Your task to perform on an android device: open a bookmark in the chrome app Image 0: 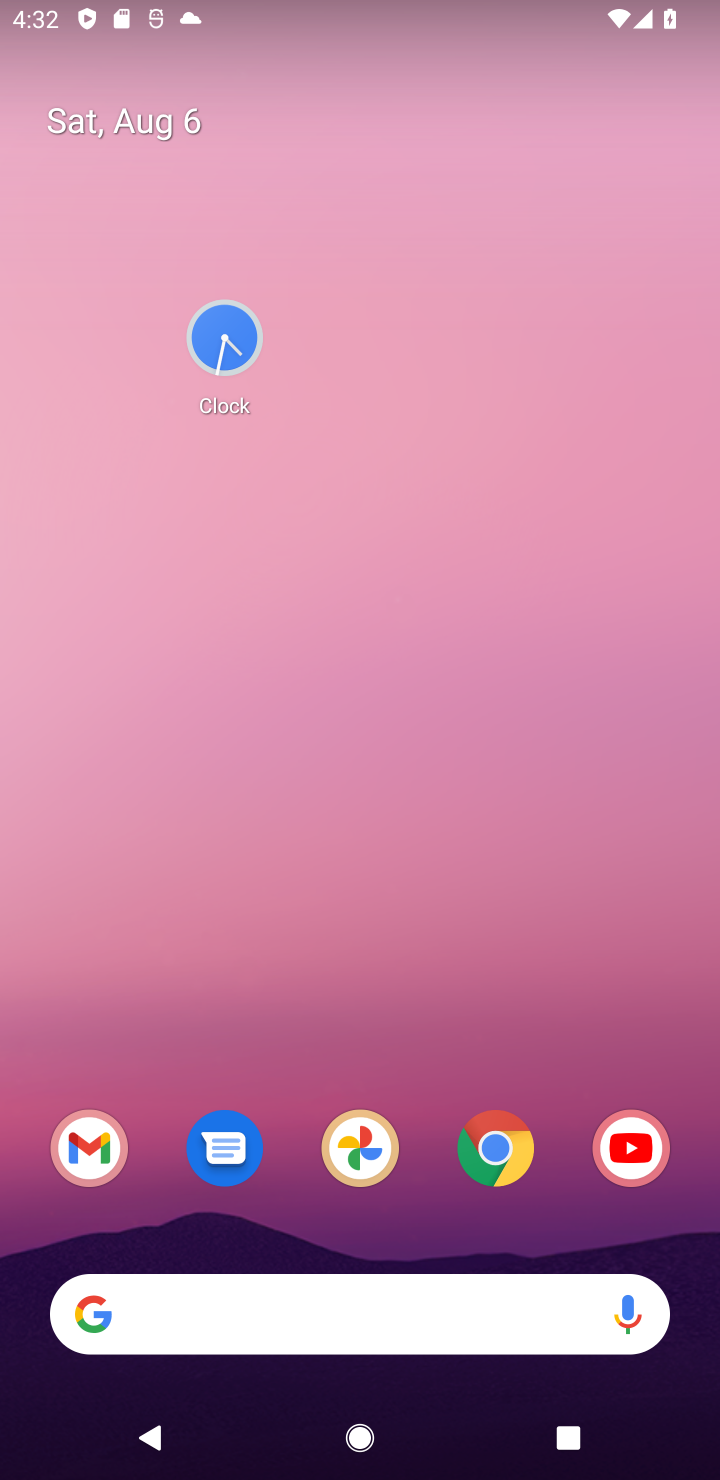
Step 0: drag from (441, 758) to (582, 1402)
Your task to perform on an android device: open a bookmark in the chrome app Image 1: 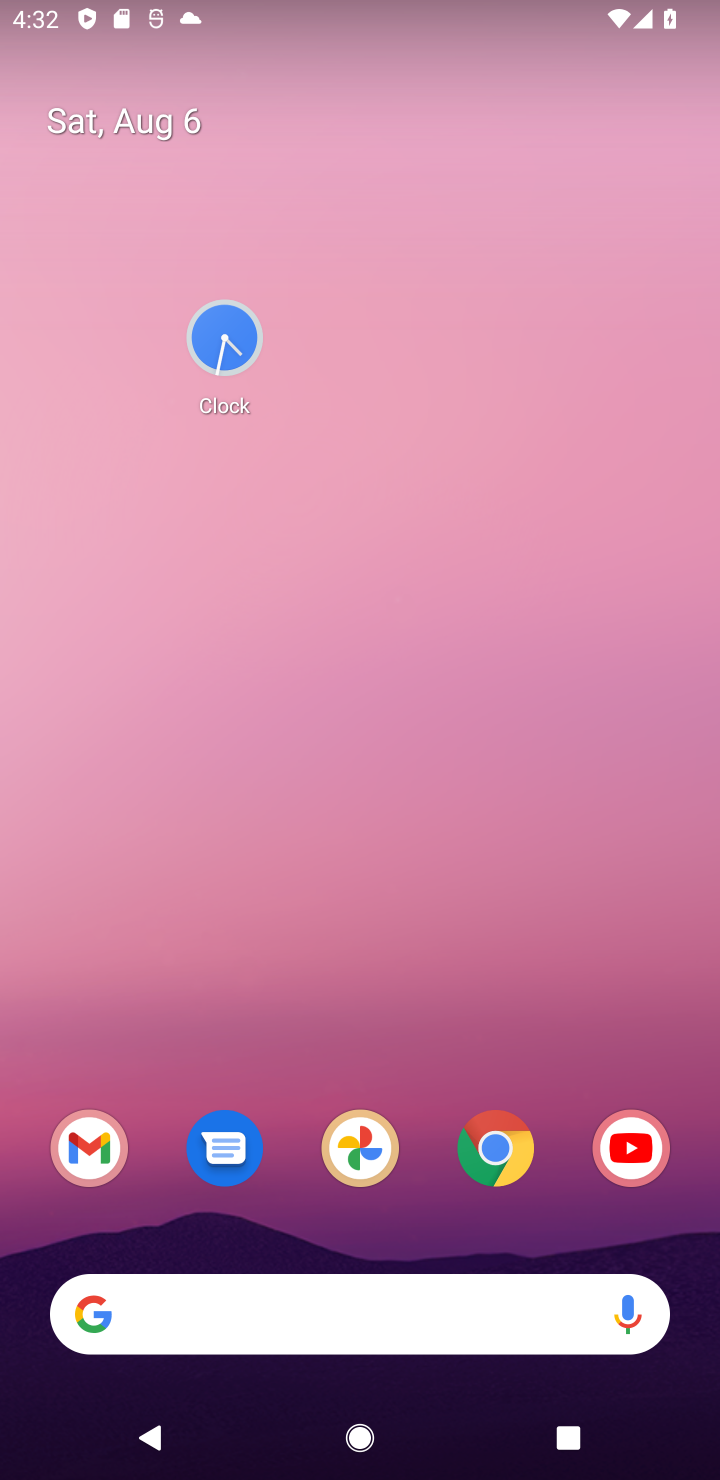
Step 1: click (492, 1156)
Your task to perform on an android device: open a bookmark in the chrome app Image 2: 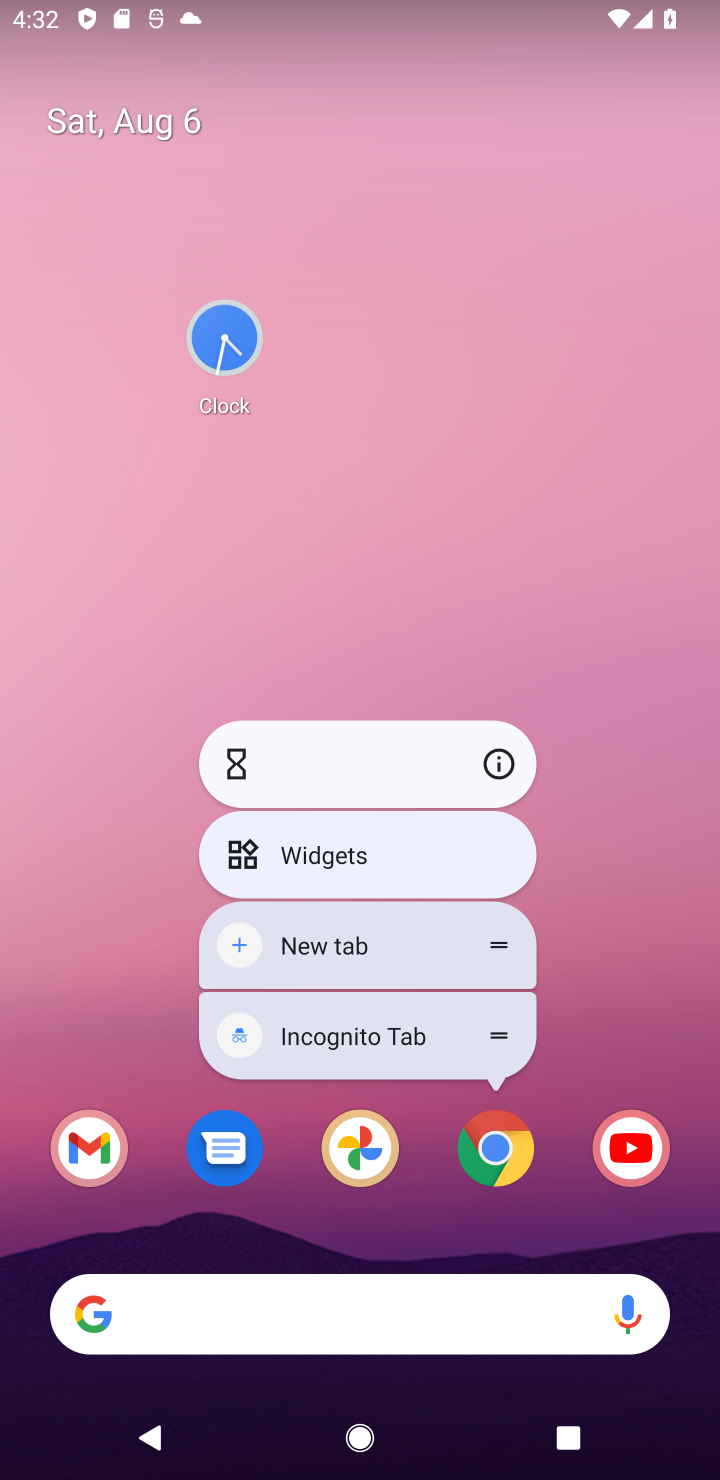
Step 2: click (494, 790)
Your task to perform on an android device: open a bookmark in the chrome app Image 3: 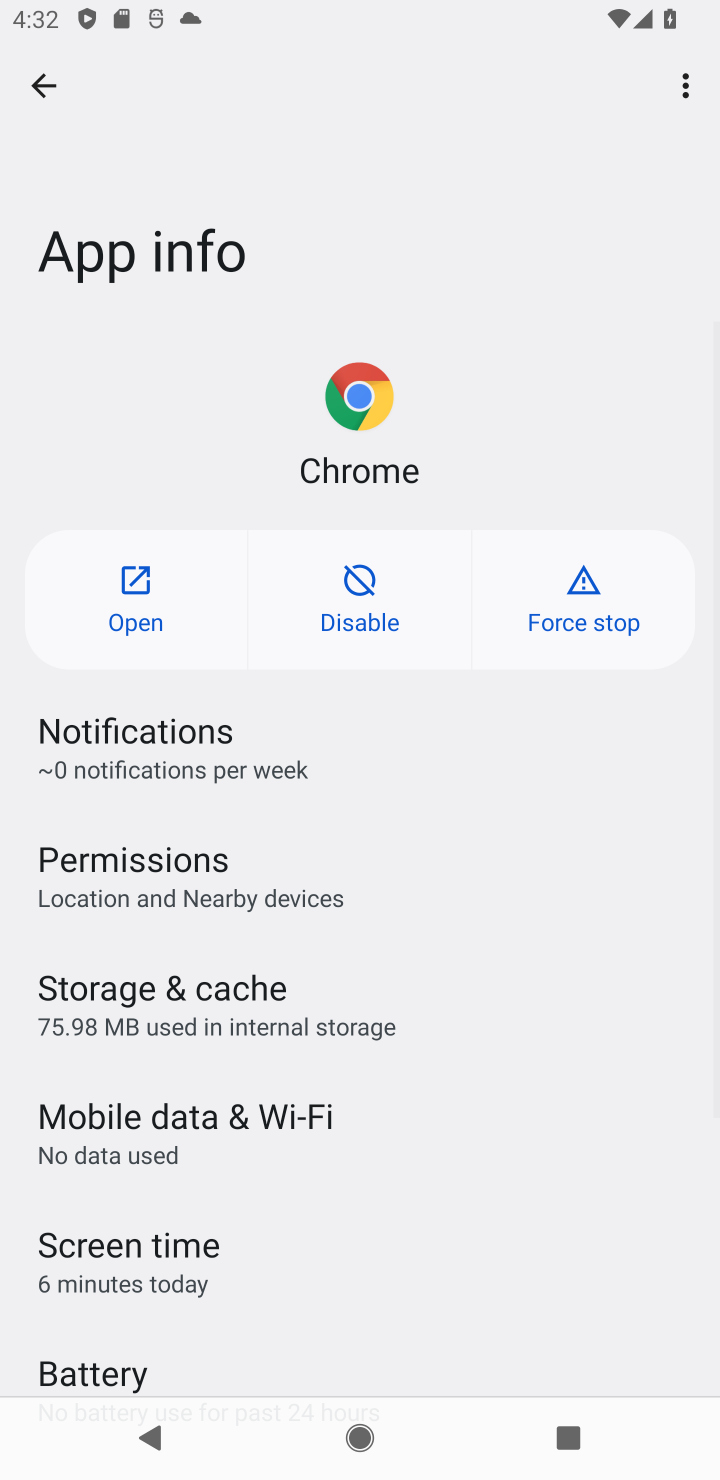
Step 3: click (170, 588)
Your task to perform on an android device: open a bookmark in the chrome app Image 4: 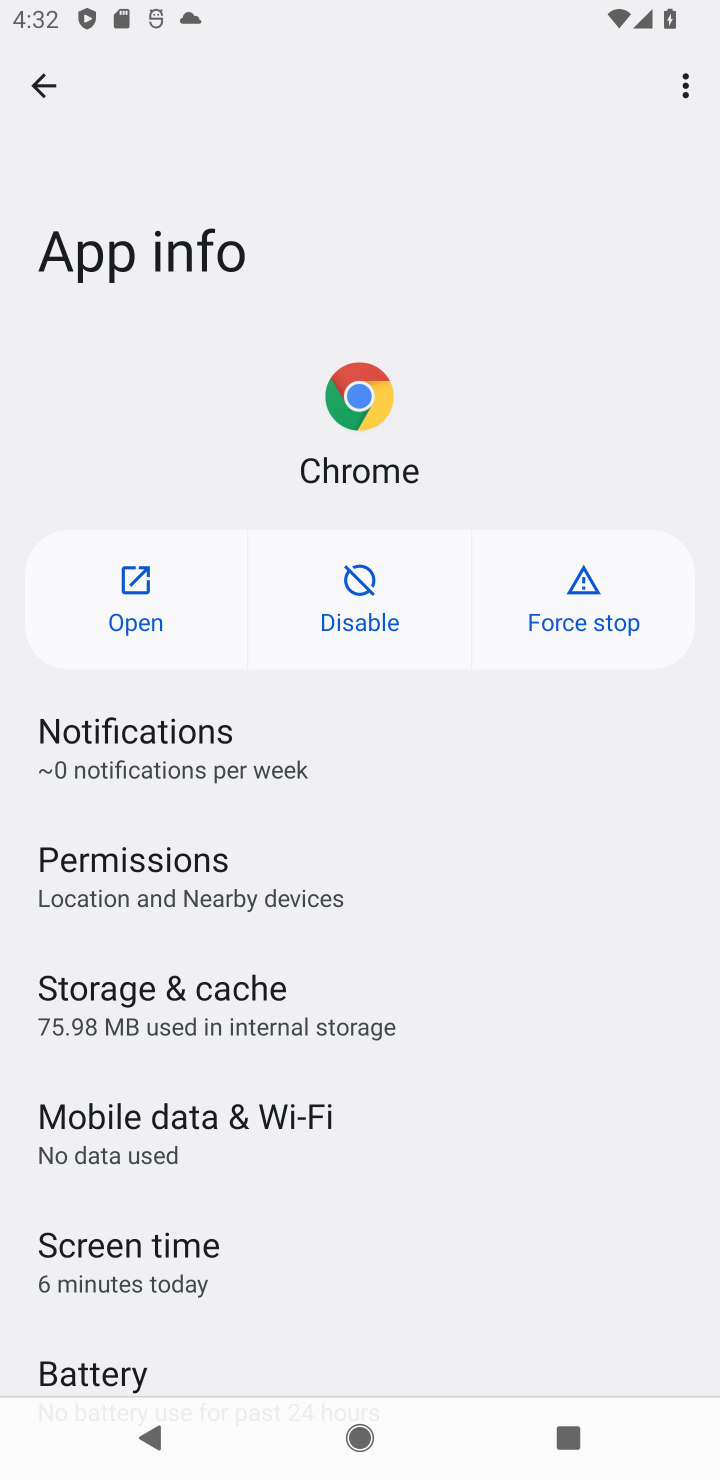
Step 4: click (165, 588)
Your task to perform on an android device: open a bookmark in the chrome app Image 5: 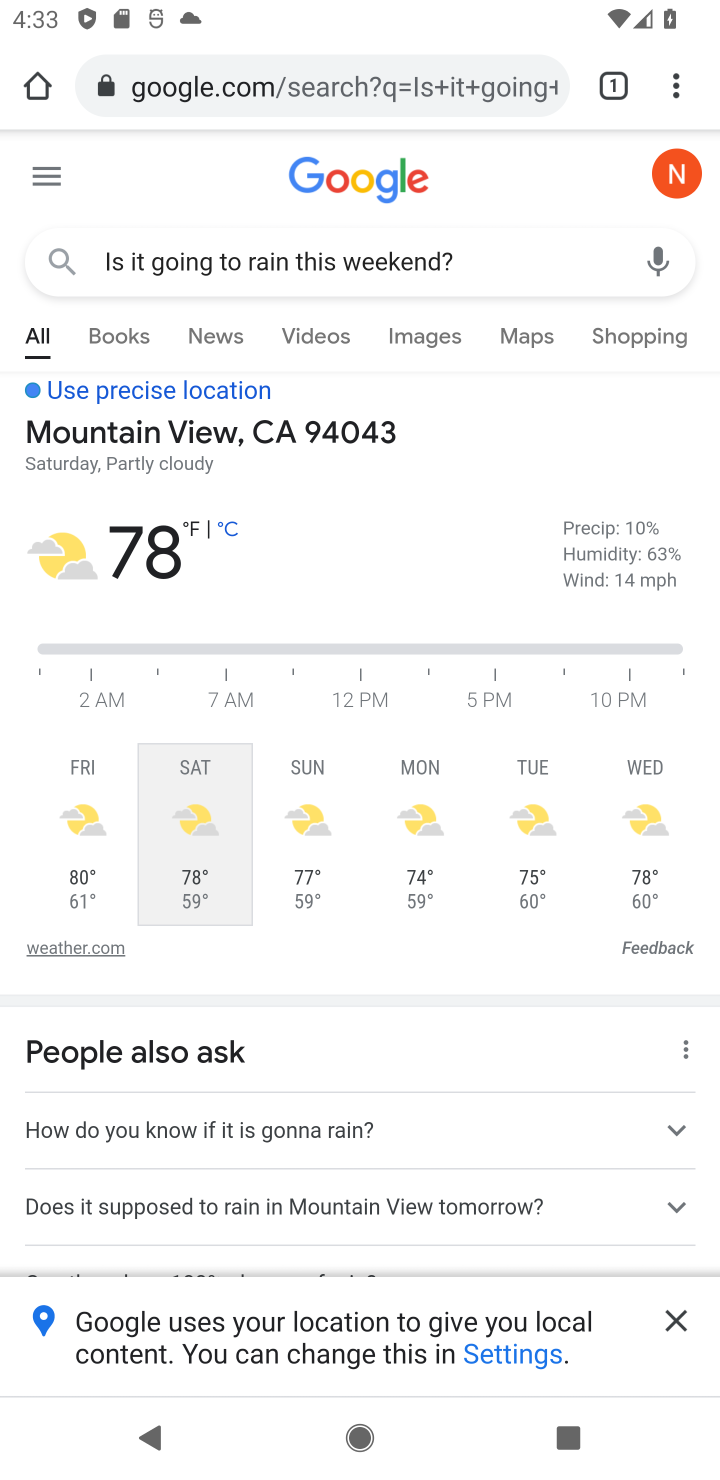
Step 5: task complete